Your task to perform on an android device: Go to battery settings Image 0: 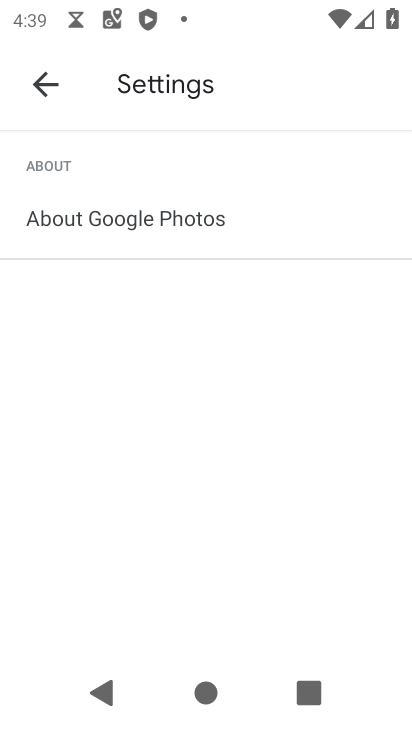
Step 0: press home button
Your task to perform on an android device: Go to battery settings Image 1: 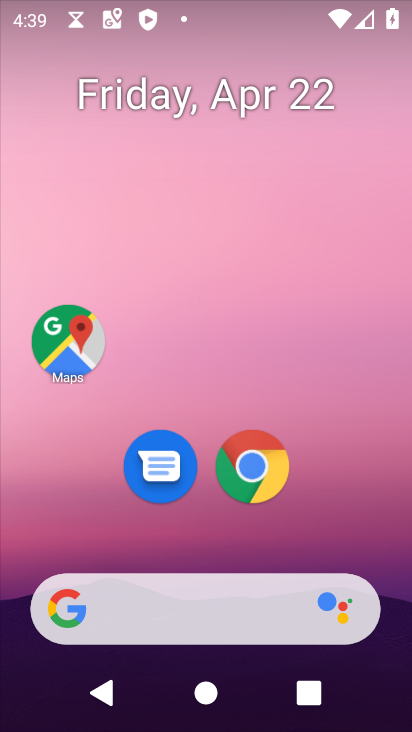
Step 1: drag from (381, 520) to (314, 154)
Your task to perform on an android device: Go to battery settings Image 2: 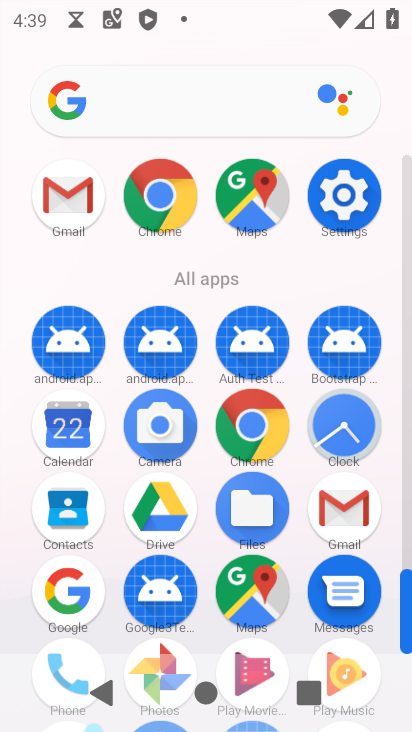
Step 2: click (346, 215)
Your task to perform on an android device: Go to battery settings Image 3: 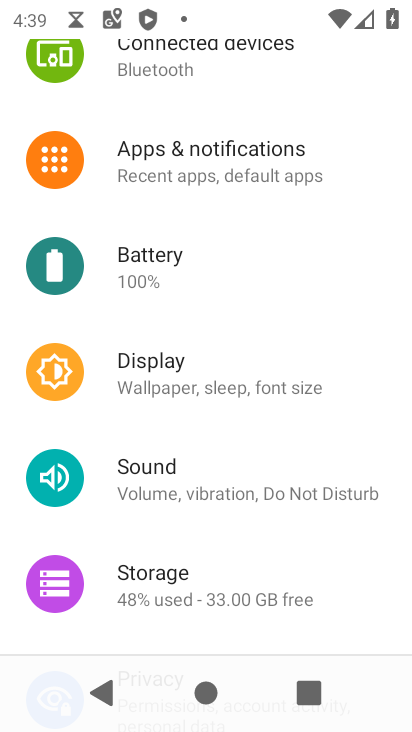
Step 3: click (211, 272)
Your task to perform on an android device: Go to battery settings Image 4: 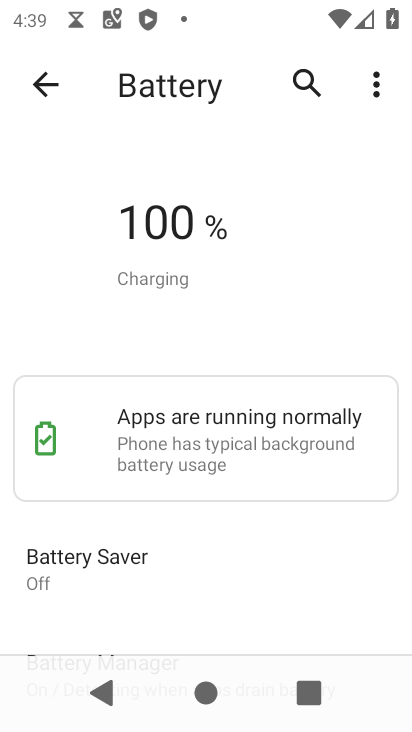
Step 4: task complete